Your task to perform on an android device: open a new tab in the chrome app Image 0: 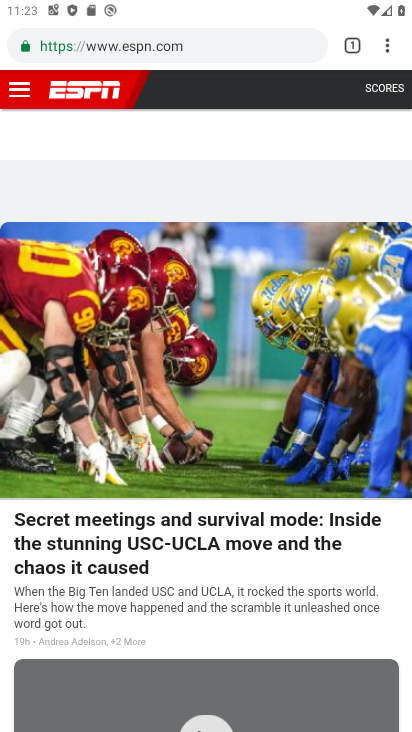
Step 0: drag from (387, 40) to (275, 75)
Your task to perform on an android device: open a new tab in the chrome app Image 1: 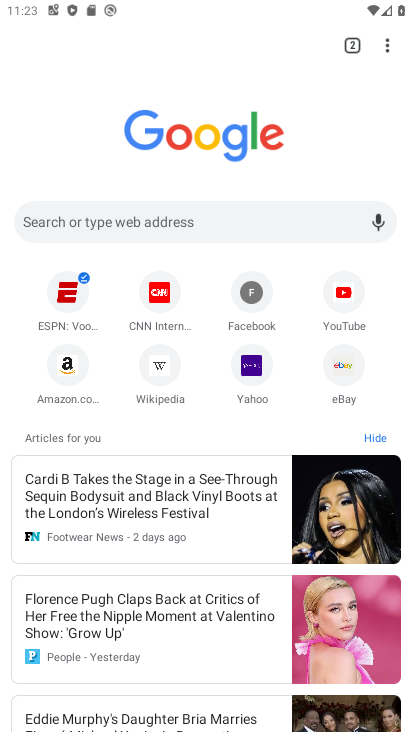
Step 1: task complete